Your task to perform on an android device: turn pop-ups on in chrome Image 0: 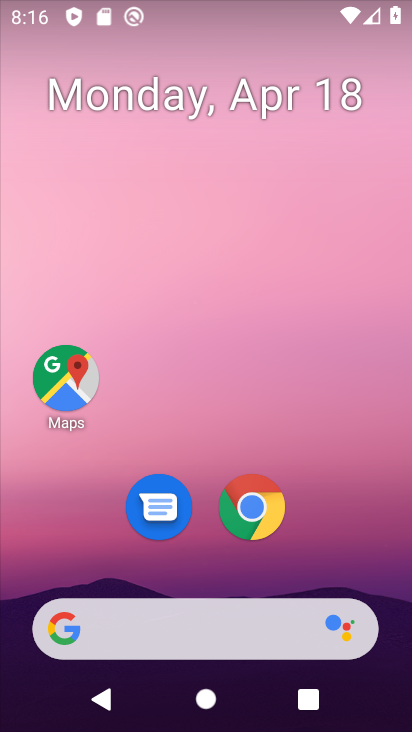
Step 0: click (248, 500)
Your task to perform on an android device: turn pop-ups on in chrome Image 1: 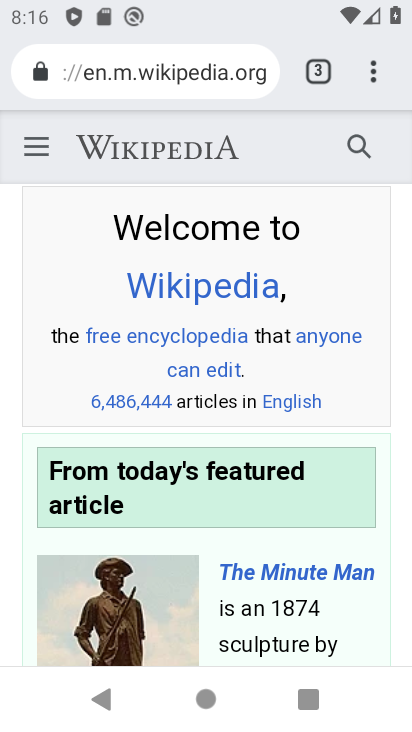
Step 1: click (377, 71)
Your task to perform on an android device: turn pop-ups on in chrome Image 2: 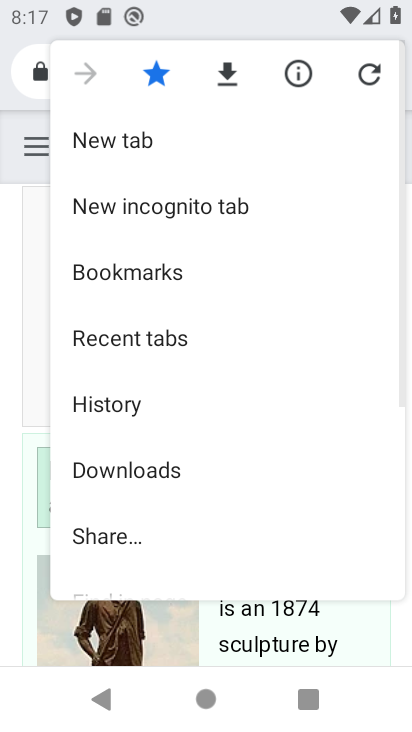
Step 2: drag from (197, 483) to (182, 150)
Your task to perform on an android device: turn pop-ups on in chrome Image 3: 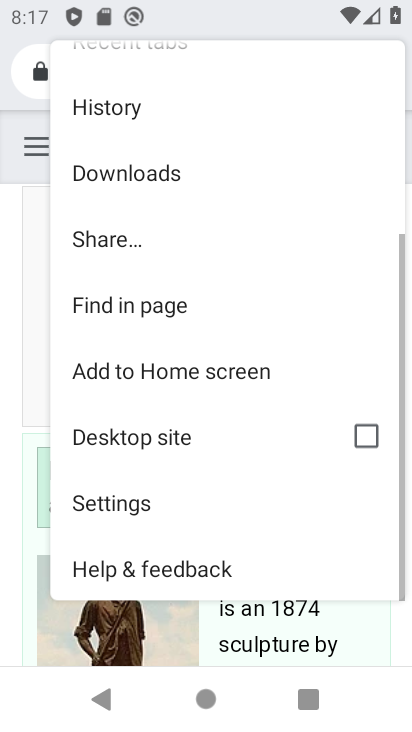
Step 3: click (148, 499)
Your task to perform on an android device: turn pop-ups on in chrome Image 4: 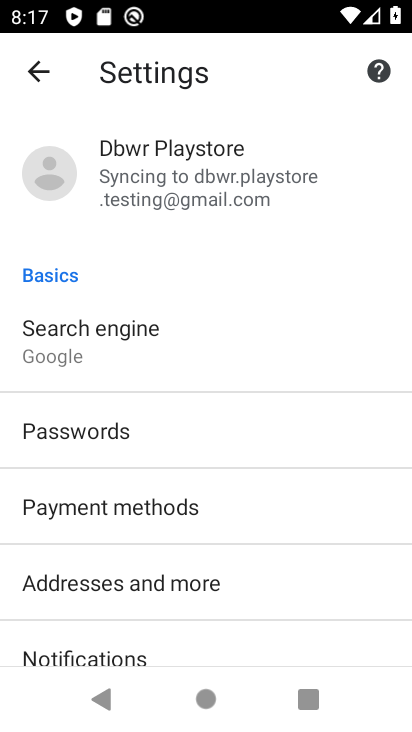
Step 4: drag from (205, 601) to (201, 266)
Your task to perform on an android device: turn pop-ups on in chrome Image 5: 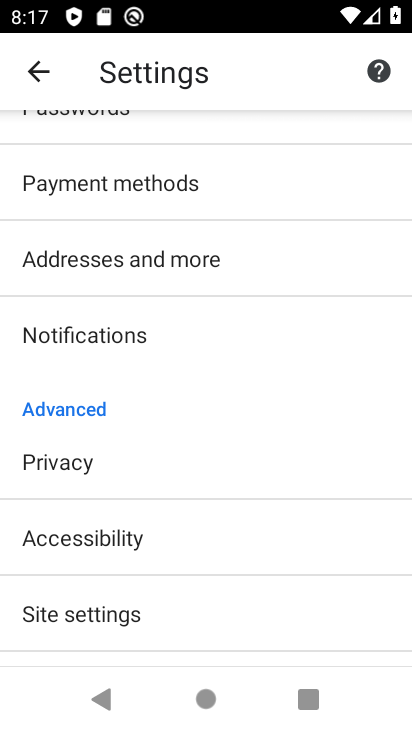
Step 5: click (93, 605)
Your task to perform on an android device: turn pop-ups on in chrome Image 6: 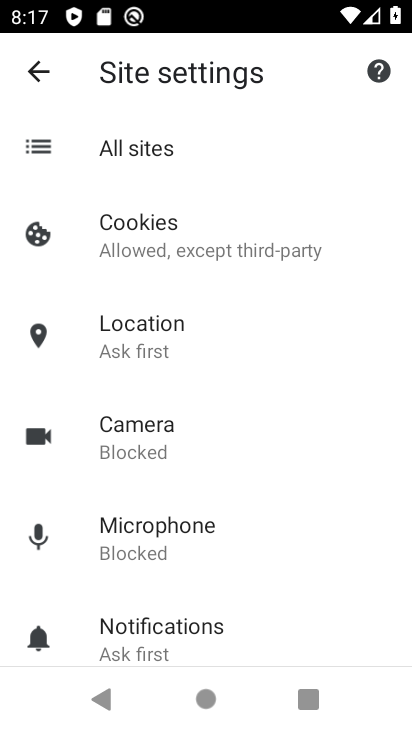
Step 6: drag from (243, 599) to (233, 213)
Your task to perform on an android device: turn pop-ups on in chrome Image 7: 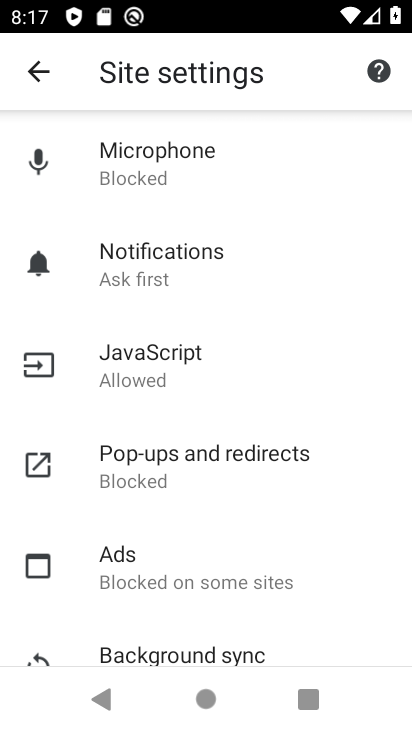
Step 7: click (192, 440)
Your task to perform on an android device: turn pop-ups on in chrome Image 8: 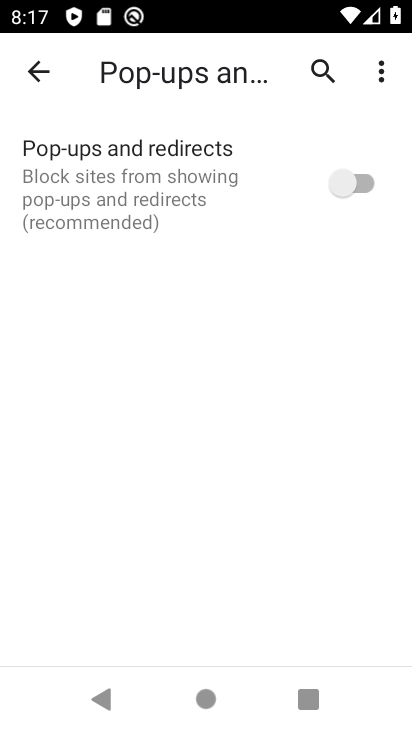
Step 8: click (359, 181)
Your task to perform on an android device: turn pop-ups on in chrome Image 9: 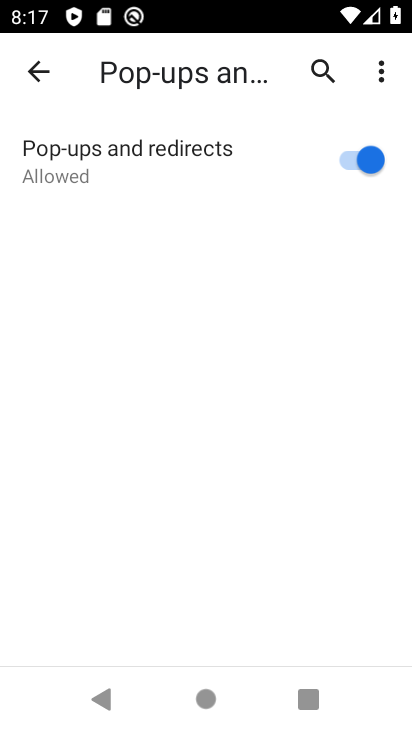
Step 9: task complete